Your task to perform on an android device: Open privacy settings Image 0: 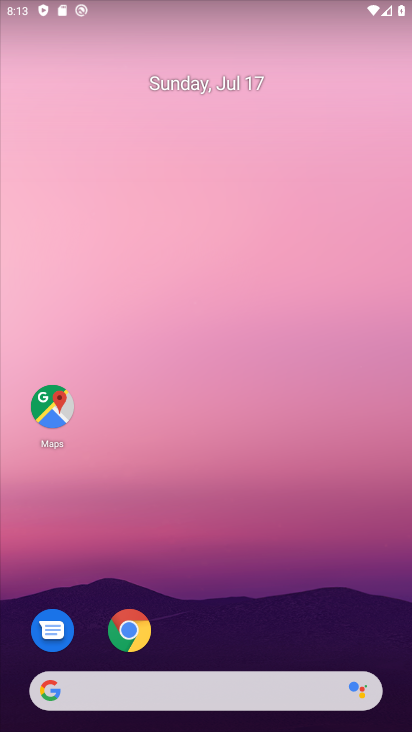
Step 0: drag from (235, 646) to (220, 547)
Your task to perform on an android device: Open privacy settings Image 1: 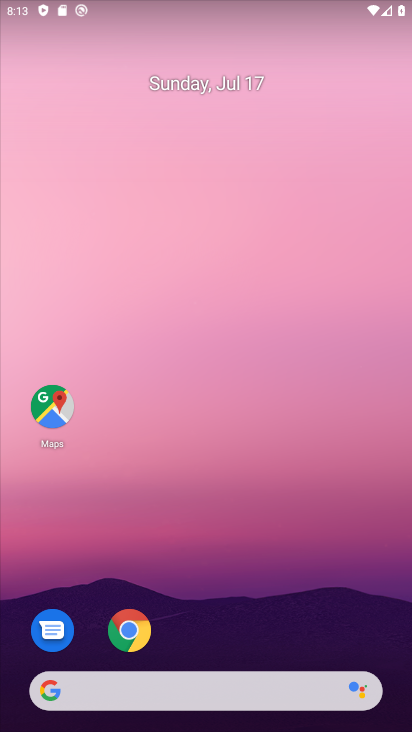
Step 1: click (222, 613)
Your task to perform on an android device: Open privacy settings Image 2: 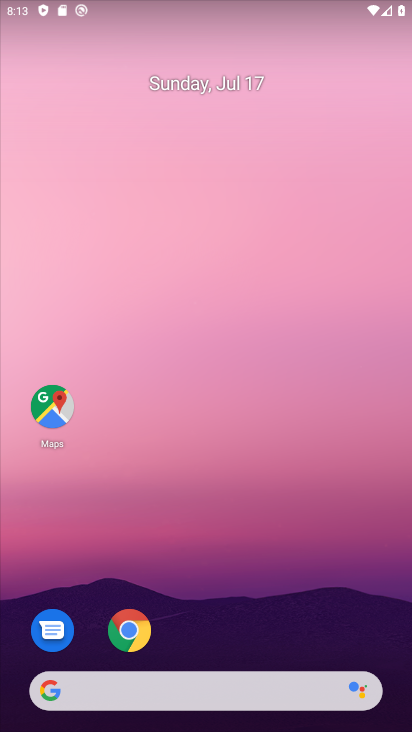
Step 2: drag from (222, 614) to (265, 116)
Your task to perform on an android device: Open privacy settings Image 3: 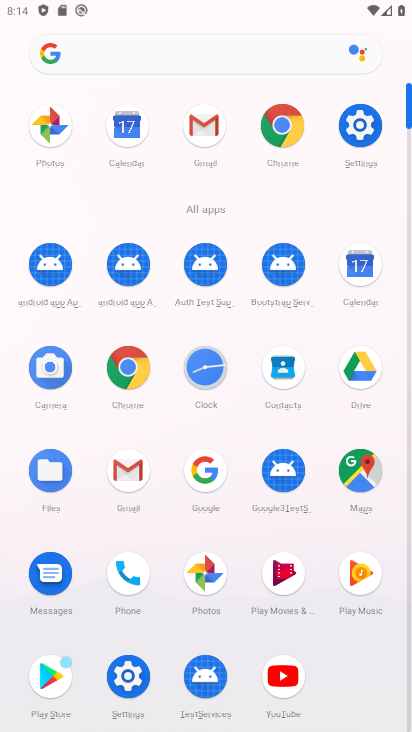
Step 3: click (352, 118)
Your task to perform on an android device: Open privacy settings Image 4: 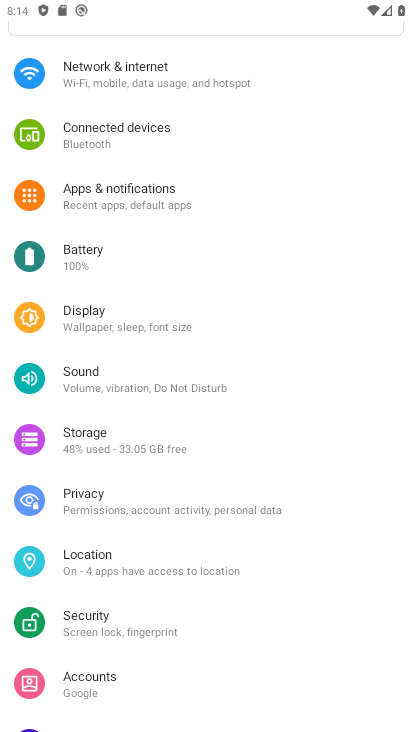
Step 4: click (184, 509)
Your task to perform on an android device: Open privacy settings Image 5: 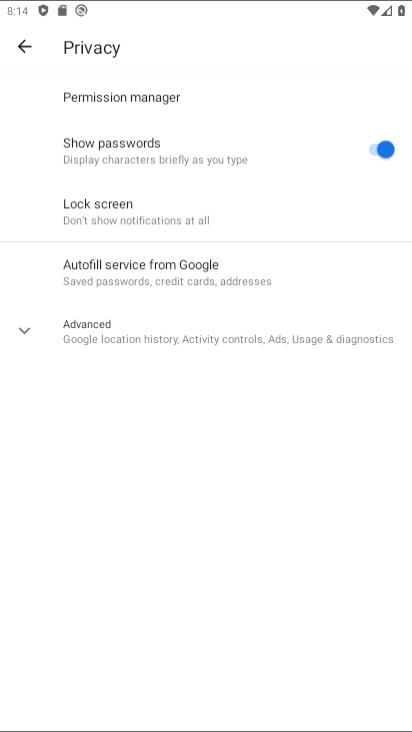
Step 5: task complete